Your task to perform on an android device: Open Google Maps and go to "Timeline" Image 0: 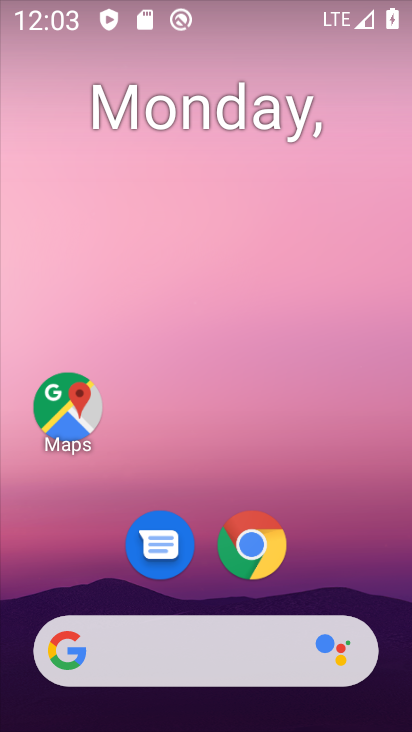
Step 0: drag from (353, 589) to (375, 239)
Your task to perform on an android device: Open Google Maps and go to "Timeline" Image 1: 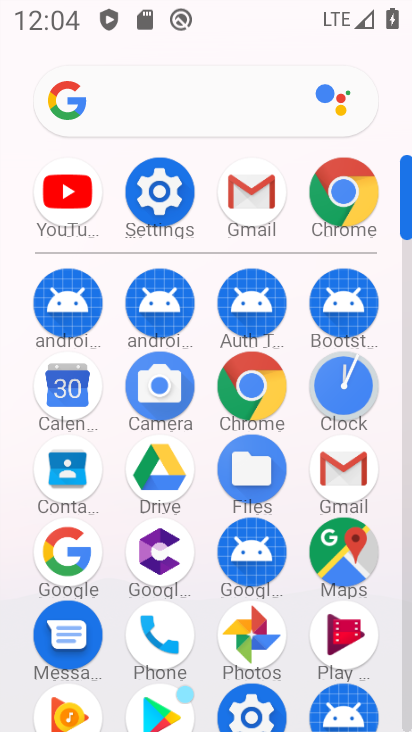
Step 1: click (352, 567)
Your task to perform on an android device: Open Google Maps and go to "Timeline" Image 2: 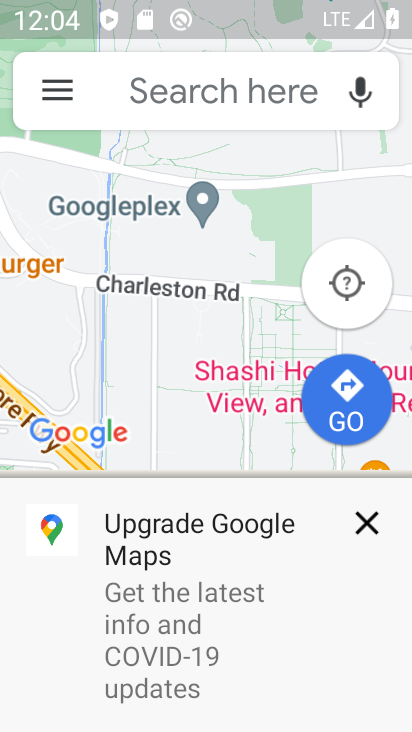
Step 2: click (59, 82)
Your task to perform on an android device: Open Google Maps and go to "Timeline" Image 3: 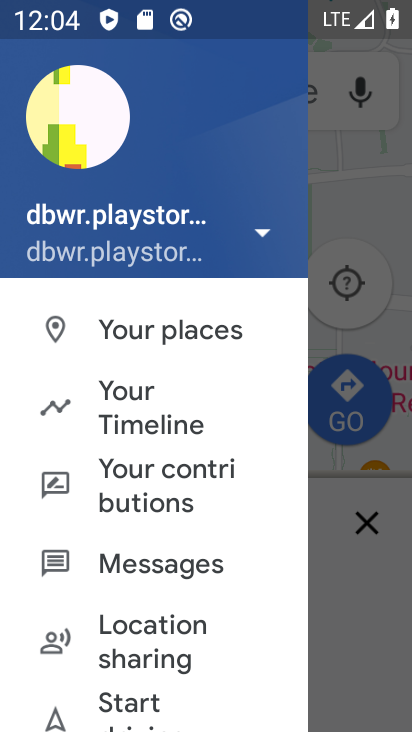
Step 3: click (205, 430)
Your task to perform on an android device: Open Google Maps and go to "Timeline" Image 4: 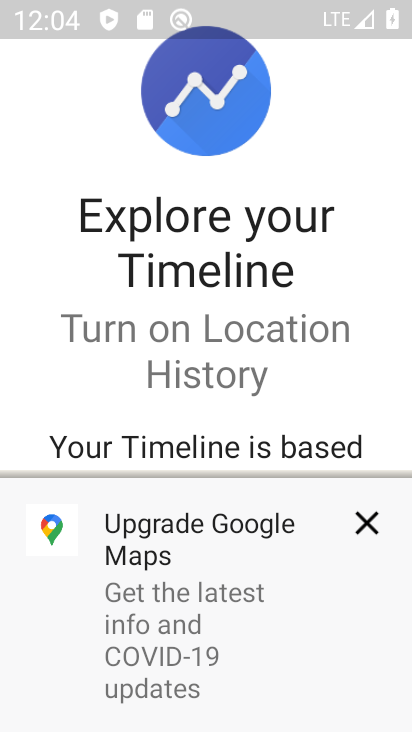
Step 4: task complete